Your task to perform on an android device: Go to battery settings Image 0: 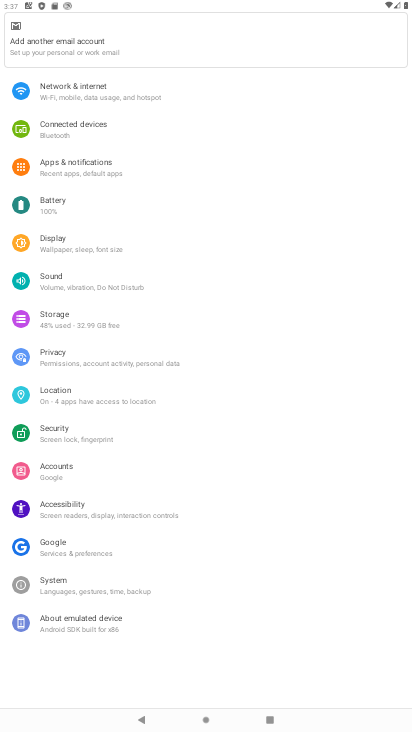
Step 0: click (50, 203)
Your task to perform on an android device: Go to battery settings Image 1: 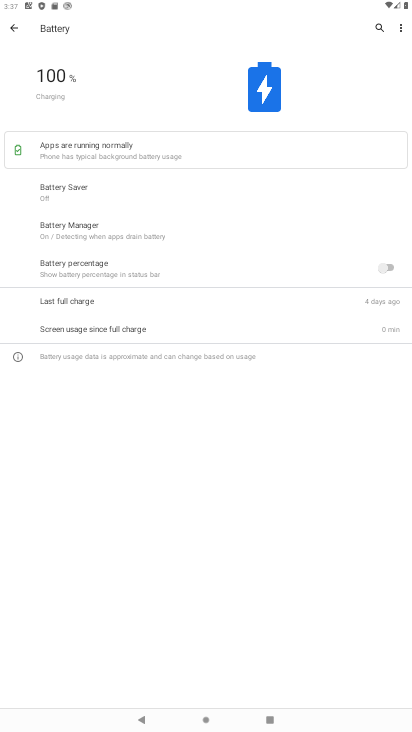
Step 1: task complete